Your task to perform on an android device: Go to Wikipedia Image 0: 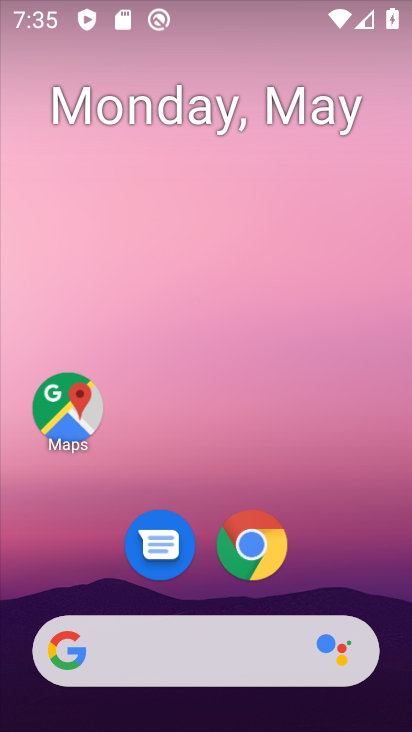
Step 0: click (263, 552)
Your task to perform on an android device: Go to Wikipedia Image 1: 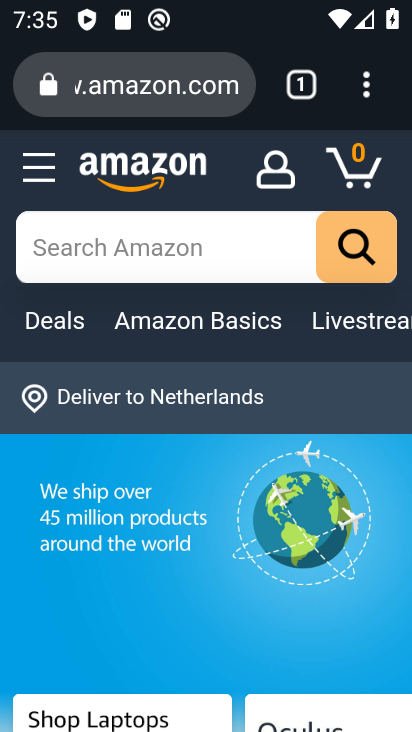
Step 1: click (312, 87)
Your task to perform on an android device: Go to Wikipedia Image 2: 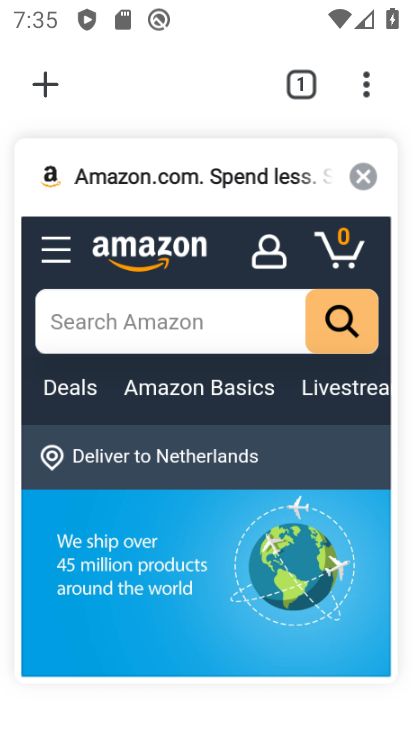
Step 2: click (51, 82)
Your task to perform on an android device: Go to Wikipedia Image 3: 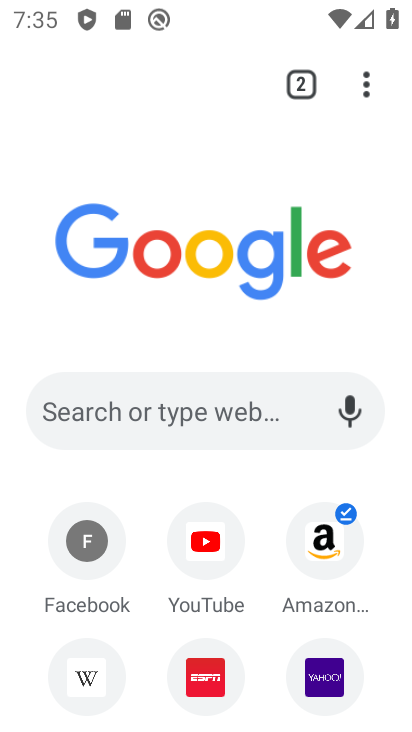
Step 3: click (78, 671)
Your task to perform on an android device: Go to Wikipedia Image 4: 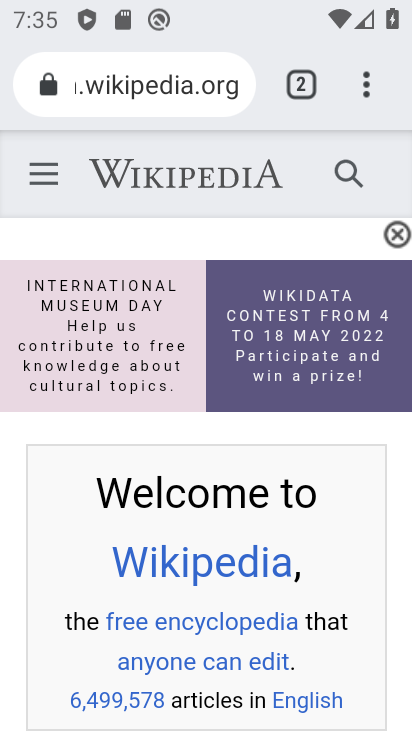
Step 4: task complete